Your task to perform on an android device: Search for seafood restaurants on Google Maps Image 0: 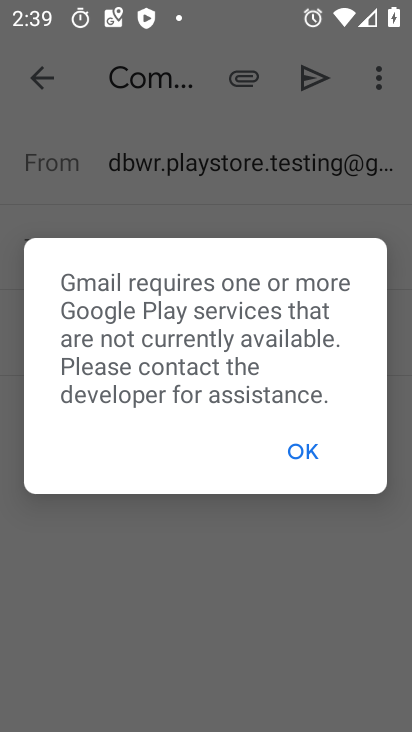
Step 0: press back button
Your task to perform on an android device: Search for seafood restaurants on Google Maps Image 1: 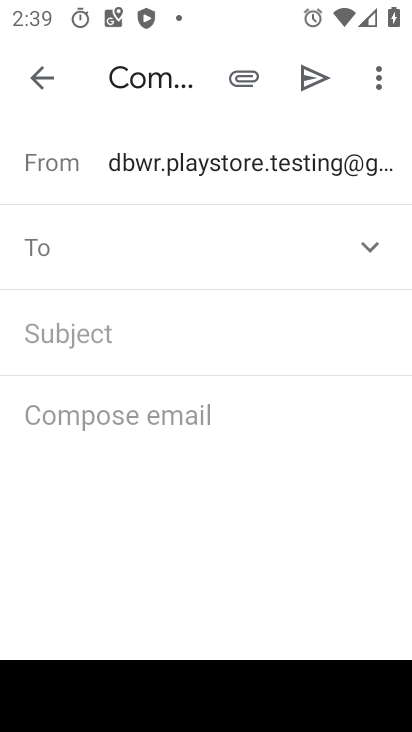
Step 1: press home button
Your task to perform on an android device: Search for seafood restaurants on Google Maps Image 2: 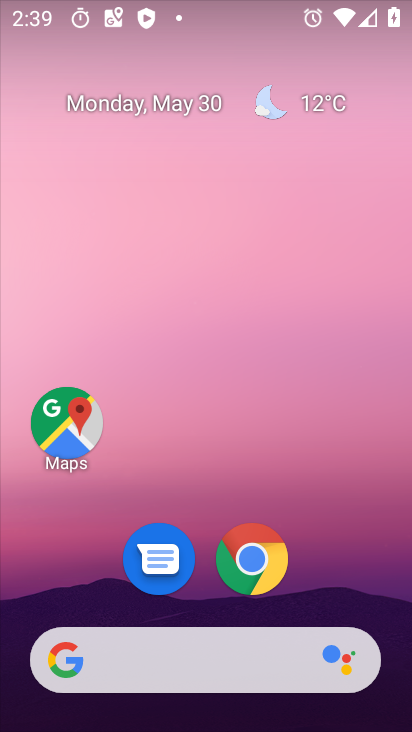
Step 2: click (65, 416)
Your task to perform on an android device: Search for seafood restaurants on Google Maps Image 3: 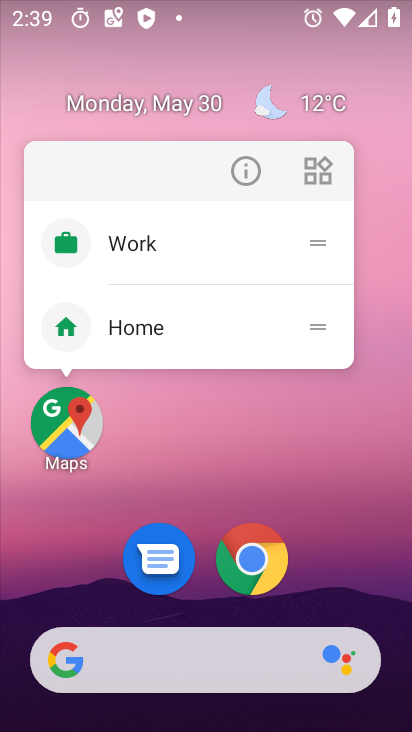
Step 3: click (66, 414)
Your task to perform on an android device: Search for seafood restaurants on Google Maps Image 4: 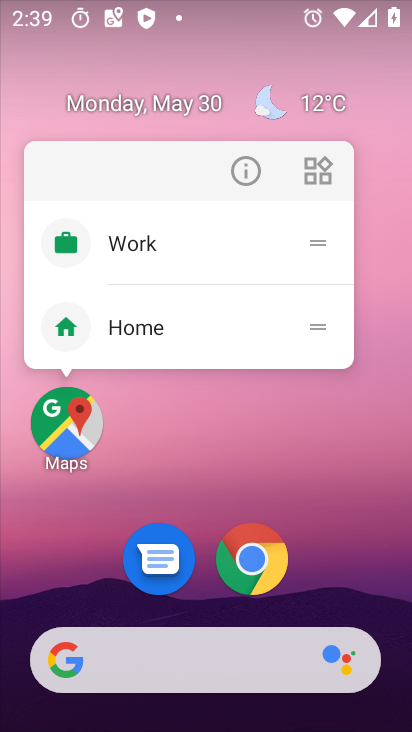
Step 4: click (70, 424)
Your task to perform on an android device: Search for seafood restaurants on Google Maps Image 5: 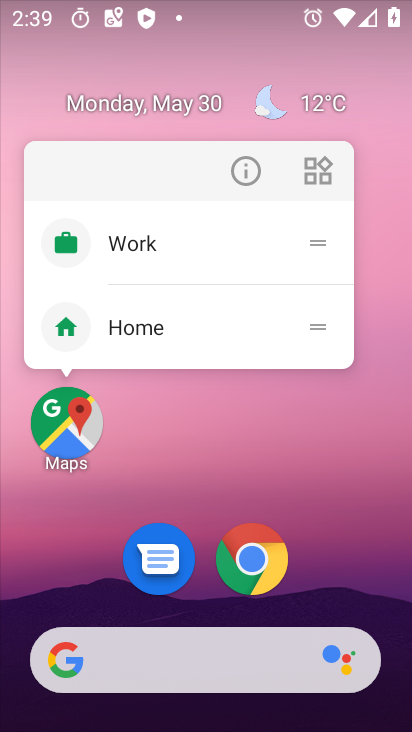
Step 5: click (69, 427)
Your task to perform on an android device: Search for seafood restaurants on Google Maps Image 6: 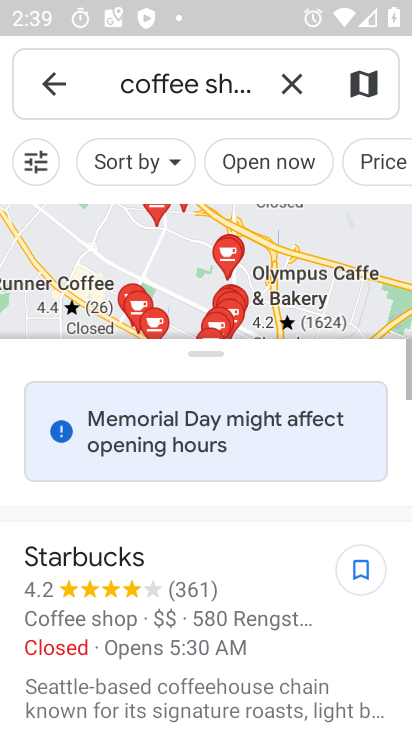
Step 6: click (288, 75)
Your task to perform on an android device: Search for seafood restaurants on Google Maps Image 7: 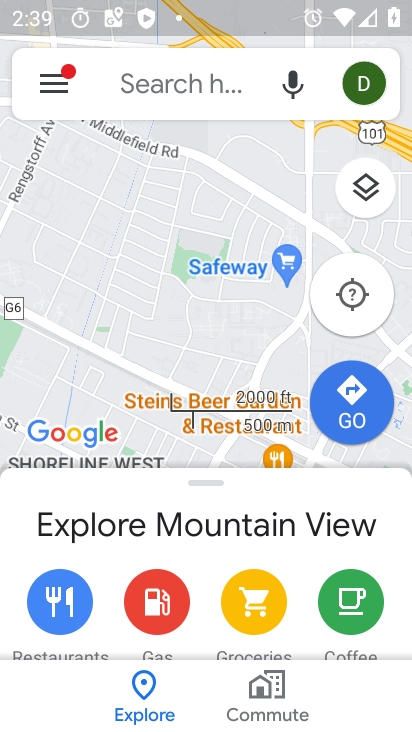
Step 7: click (147, 80)
Your task to perform on an android device: Search for seafood restaurants on Google Maps Image 8: 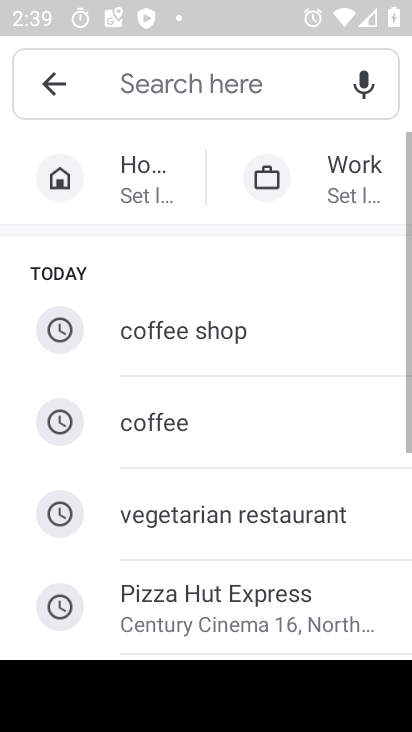
Step 8: drag from (207, 600) to (293, 78)
Your task to perform on an android device: Search for seafood restaurants on Google Maps Image 9: 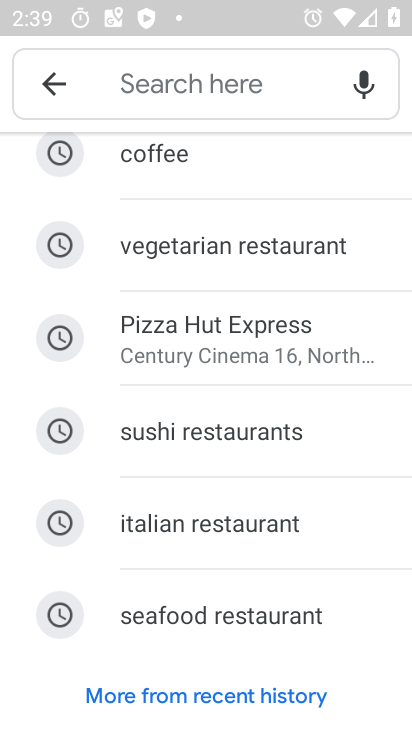
Step 9: click (173, 619)
Your task to perform on an android device: Search for seafood restaurants on Google Maps Image 10: 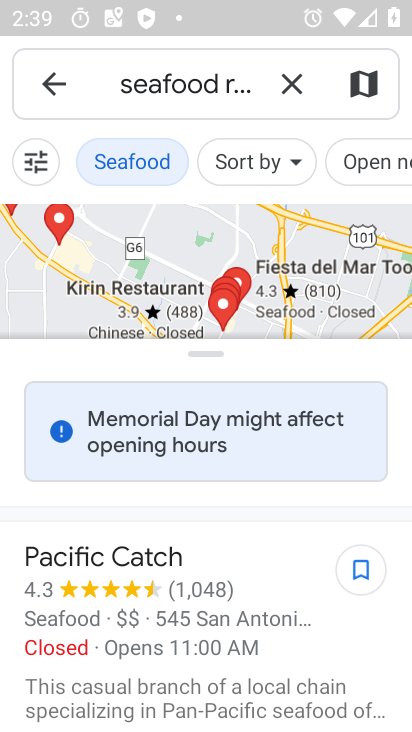
Step 10: task complete